Your task to perform on an android device: change text size in settings app Image 0: 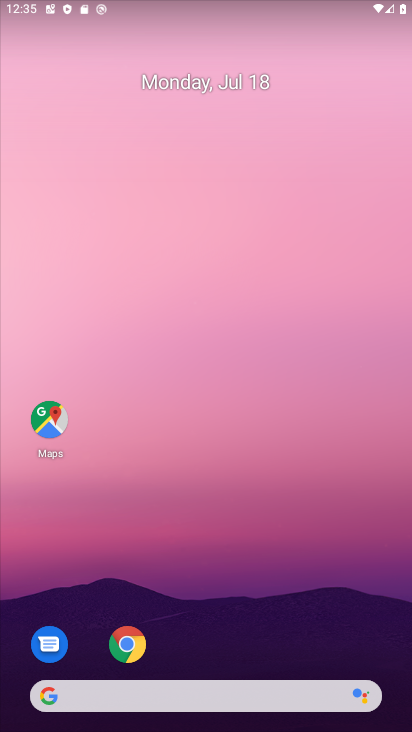
Step 0: press home button
Your task to perform on an android device: change text size in settings app Image 1: 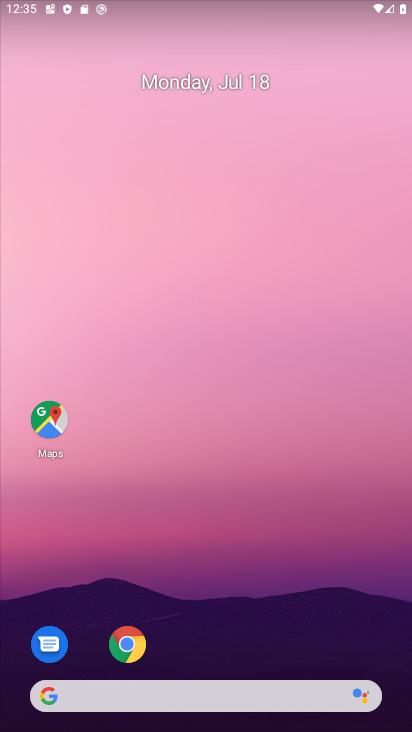
Step 1: press home button
Your task to perform on an android device: change text size in settings app Image 2: 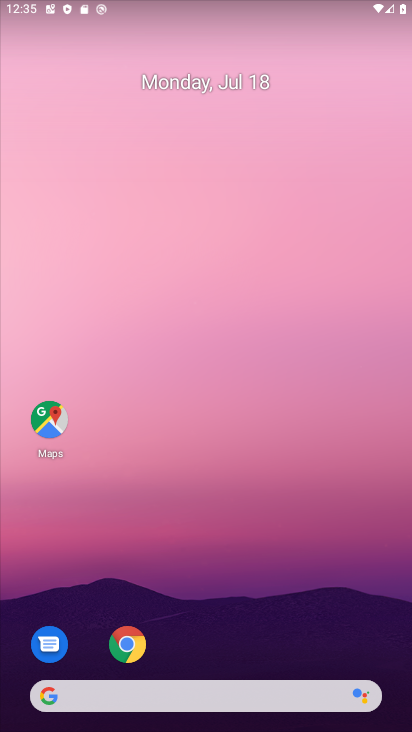
Step 2: drag from (191, 703) to (231, 448)
Your task to perform on an android device: change text size in settings app Image 3: 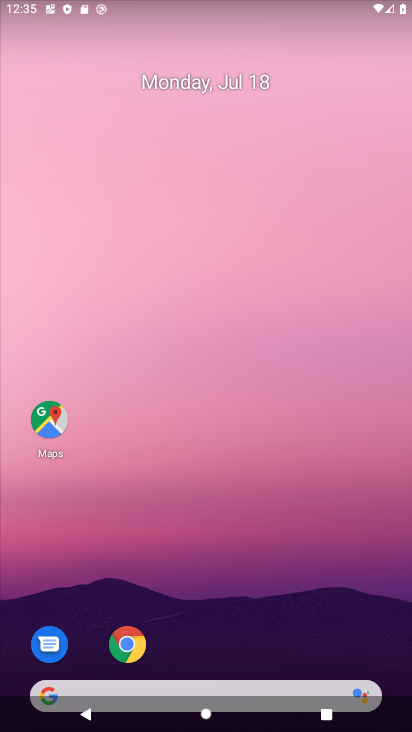
Step 3: drag from (287, 644) to (282, 162)
Your task to perform on an android device: change text size in settings app Image 4: 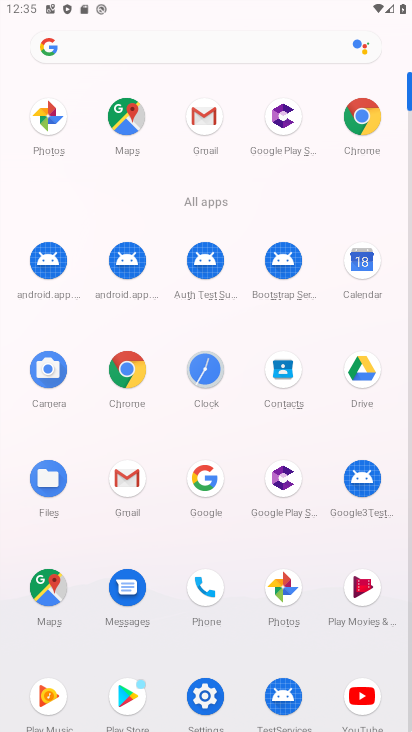
Step 4: click (208, 701)
Your task to perform on an android device: change text size in settings app Image 5: 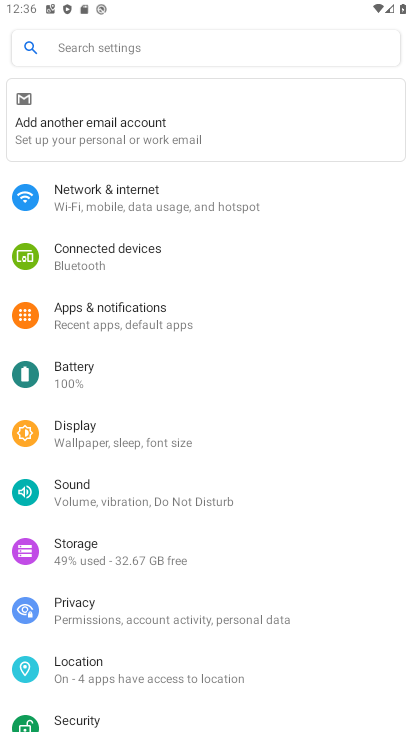
Step 5: click (56, 447)
Your task to perform on an android device: change text size in settings app Image 6: 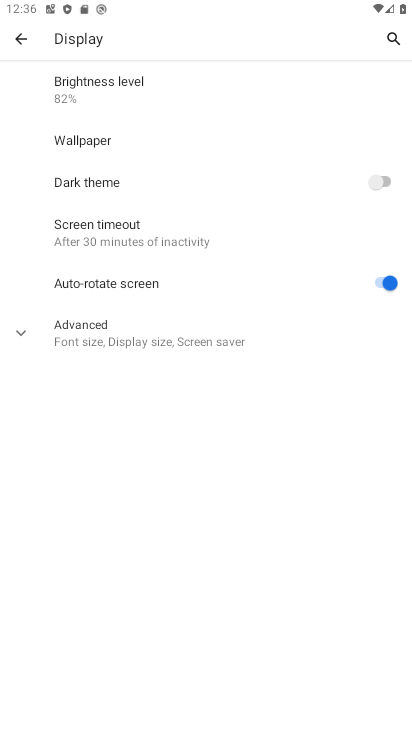
Step 6: click (86, 318)
Your task to perform on an android device: change text size in settings app Image 7: 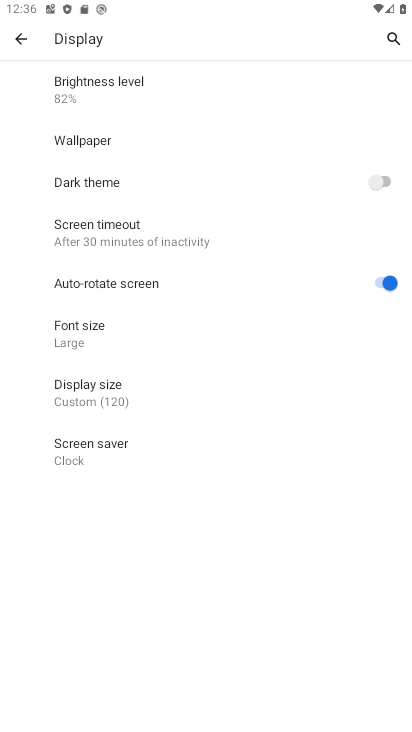
Step 7: click (91, 345)
Your task to perform on an android device: change text size in settings app Image 8: 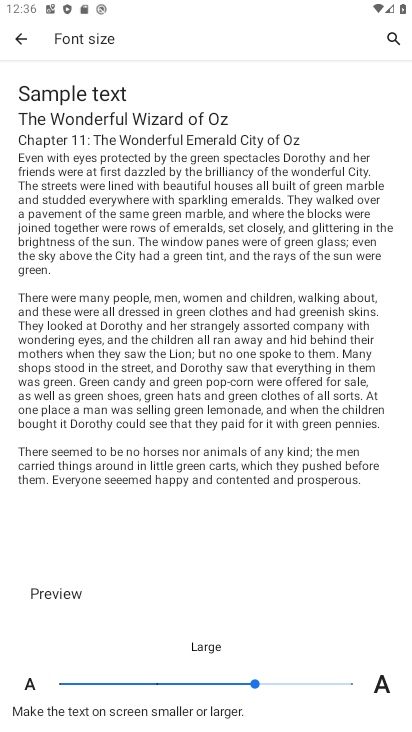
Step 8: click (19, 674)
Your task to perform on an android device: change text size in settings app Image 9: 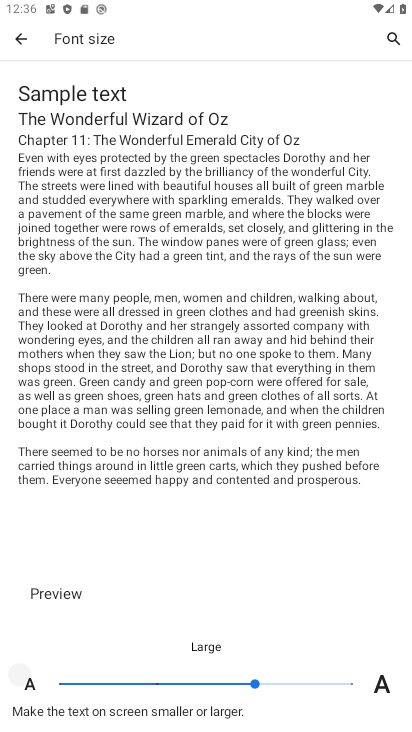
Step 9: click (19, 674)
Your task to perform on an android device: change text size in settings app Image 10: 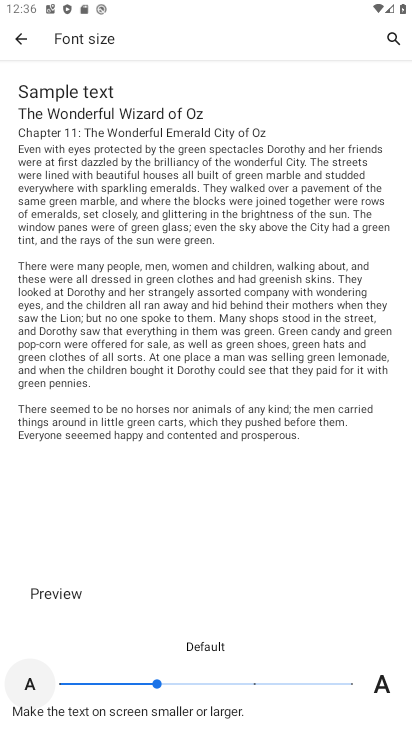
Step 10: click (19, 674)
Your task to perform on an android device: change text size in settings app Image 11: 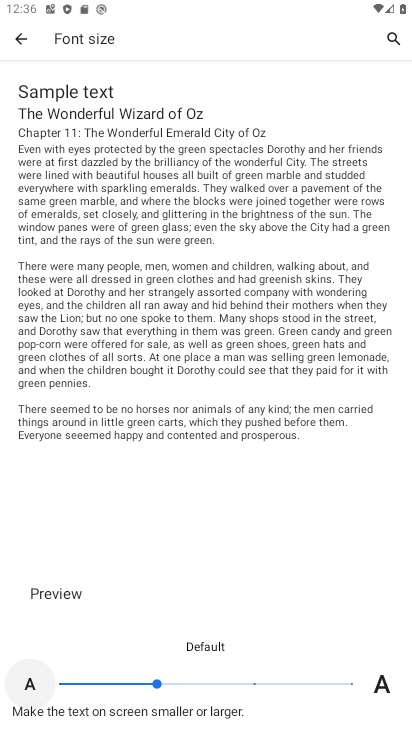
Step 11: click (19, 674)
Your task to perform on an android device: change text size in settings app Image 12: 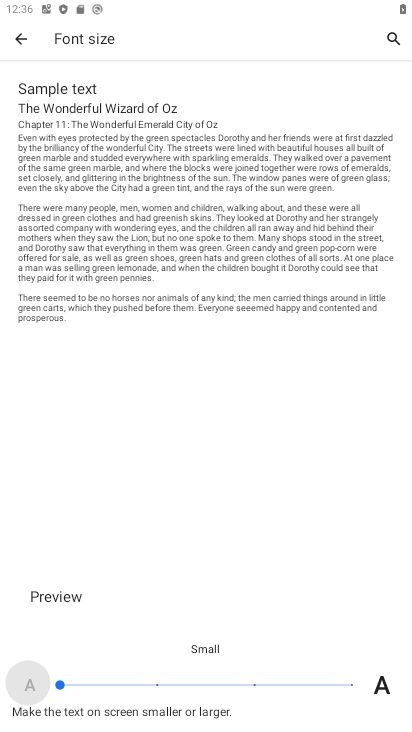
Step 12: click (19, 674)
Your task to perform on an android device: change text size in settings app Image 13: 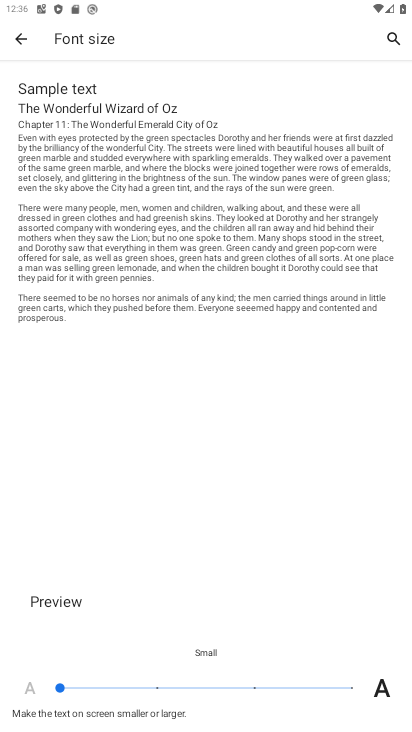
Step 13: task complete